Your task to perform on an android device: allow cookies in the chrome app Image 0: 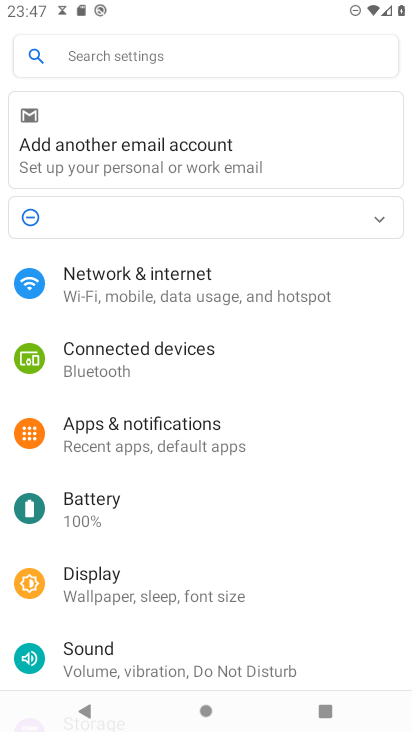
Step 0: press home button
Your task to perform on an android device: allow cookies in the chrome app Image 1: 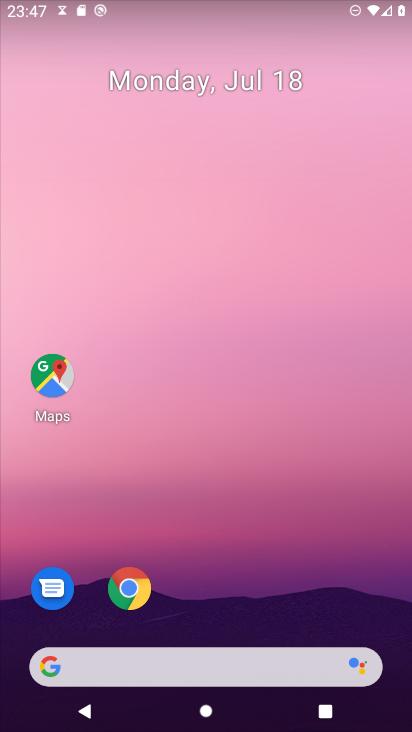
Step 1: click (132, 604)
Your task to perform on an android device: allow cookies in the chrome app Image 2: 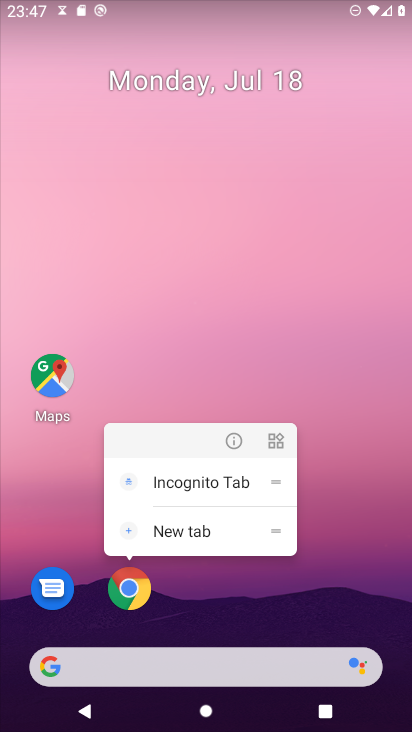
Step 2: click (129, 595)
Your task to perform on an android device: allow cookies in the chrome app Image 3: 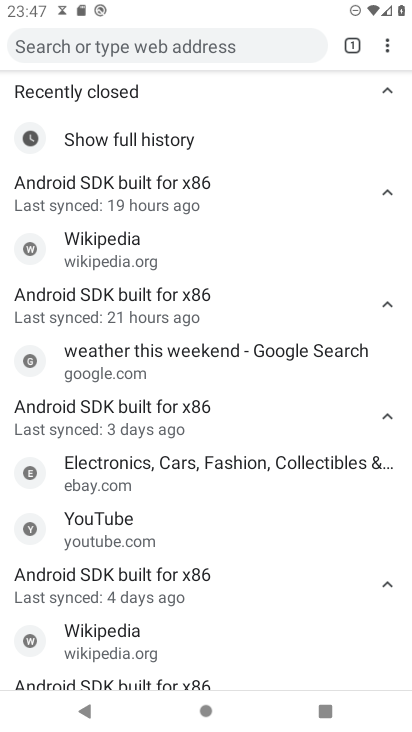
Step 3: drag from (384, 39) to (230, 384)
Your task to perform on an android device: allow cookies in the chrome app Image 4: 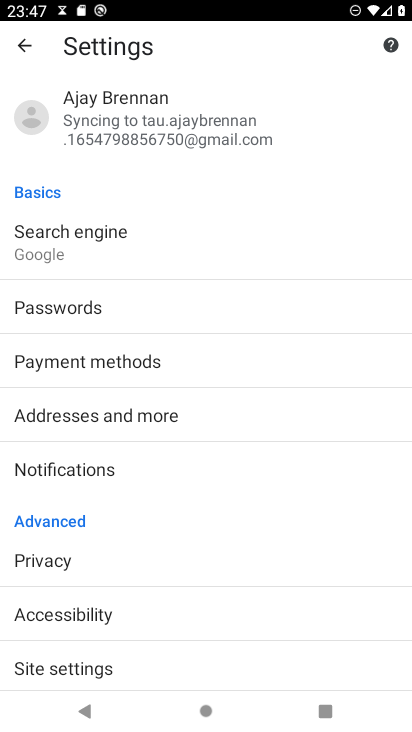
Step 4: click (57, 672)
Your task to perform on an android device: allow cookies in the chrome app Image 5: 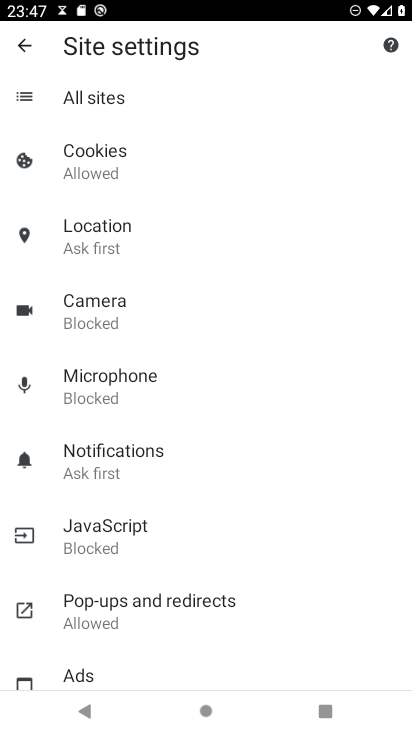
Step 5: click (100, 165)
Your task to perform on an android device: allow cookies in the chrome app Image 6: 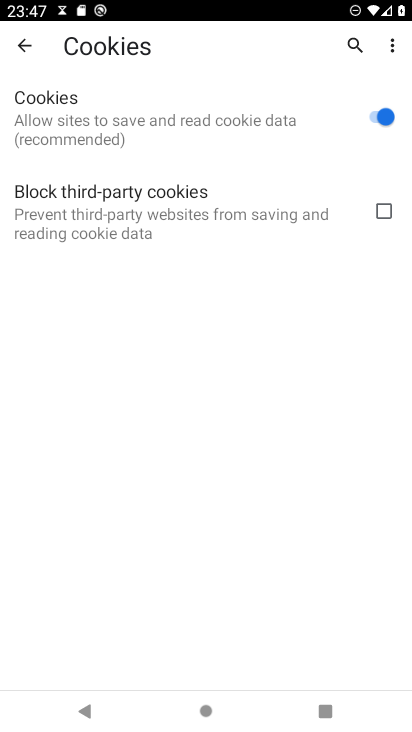
Step 6: task complete